Your task to perform on an android device: turn pop-ups off in chrome Image 0: 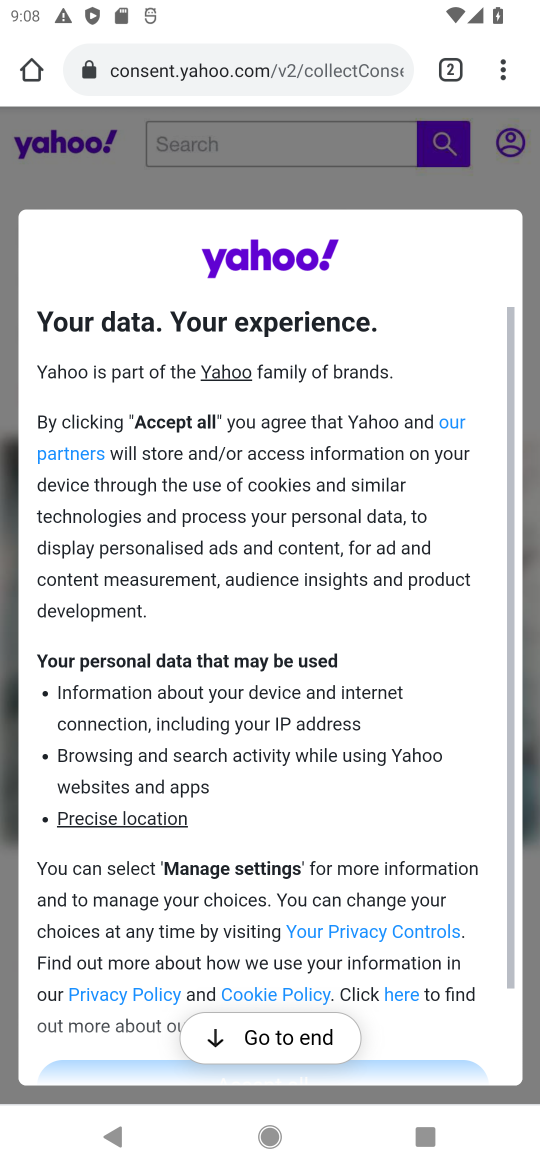
Step 0: click (500, 69)
Your task to perform on an android device: turn pop-ups off in chrome Image 1: 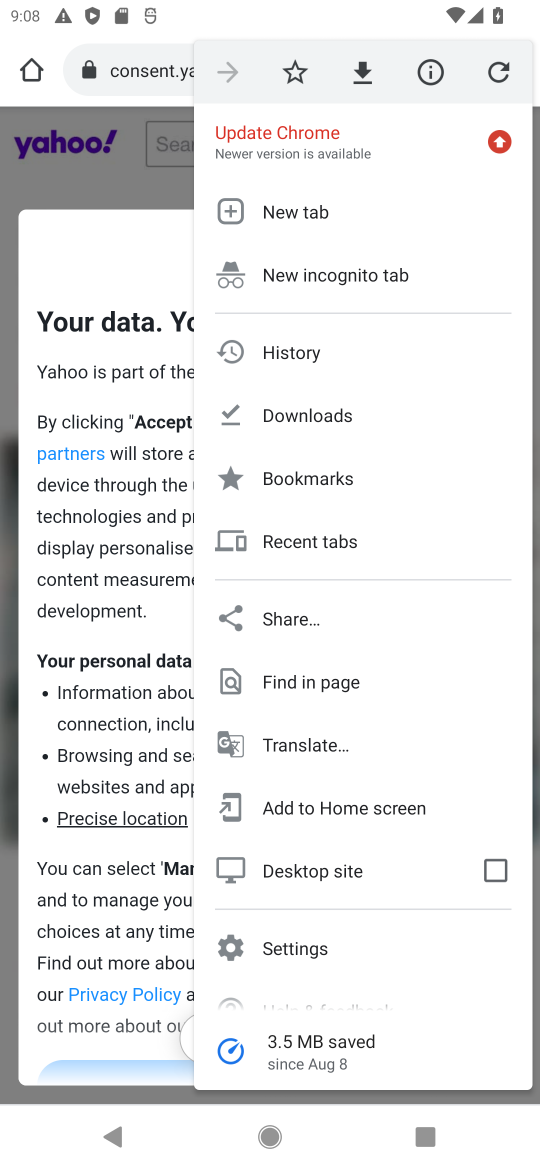
Step 1: click (375, 960)
Your task to perform on an android device: turn pop-ups off in chrome Image 2: 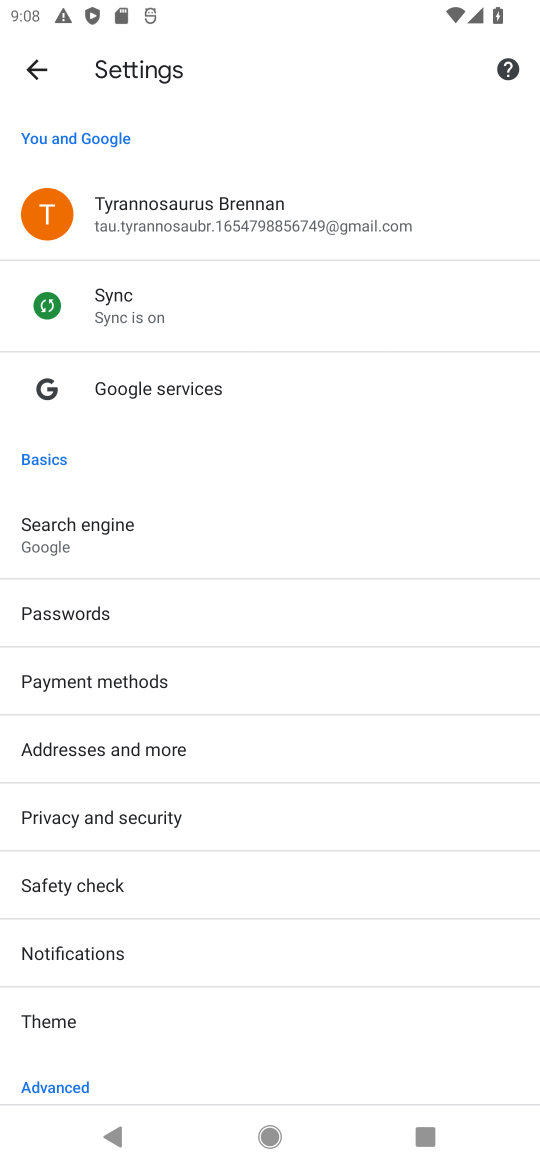
Step 2: drag from (265, 881) to (156, 149)
Your task to perform on an android device: turn pop-ups off in chrome Image 3: 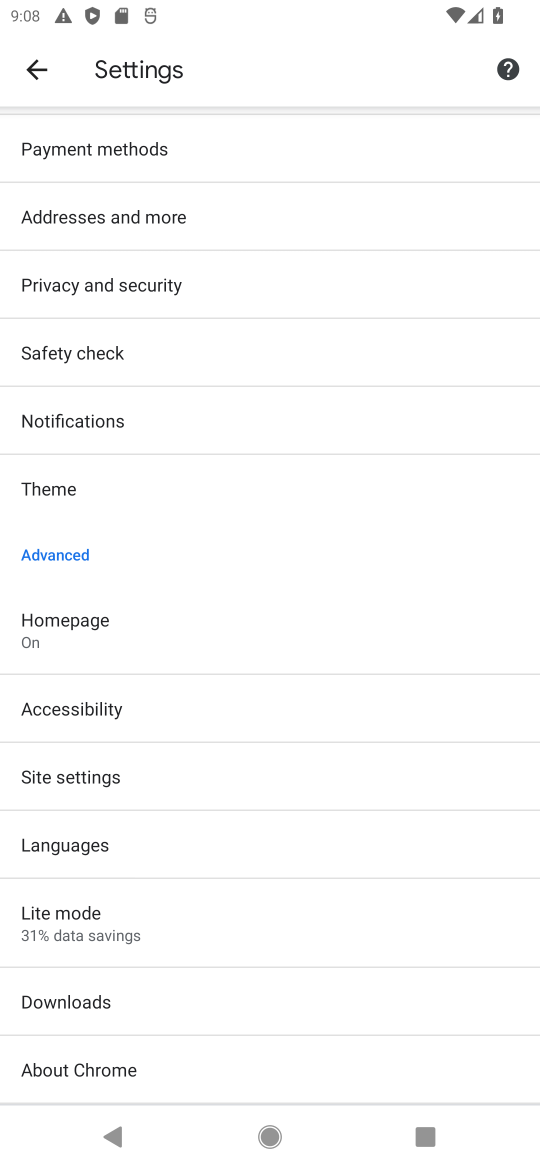
Step 3: click (75, 755)
Your task to perform on an android device: turn pop-ups off in chrome Image 4: 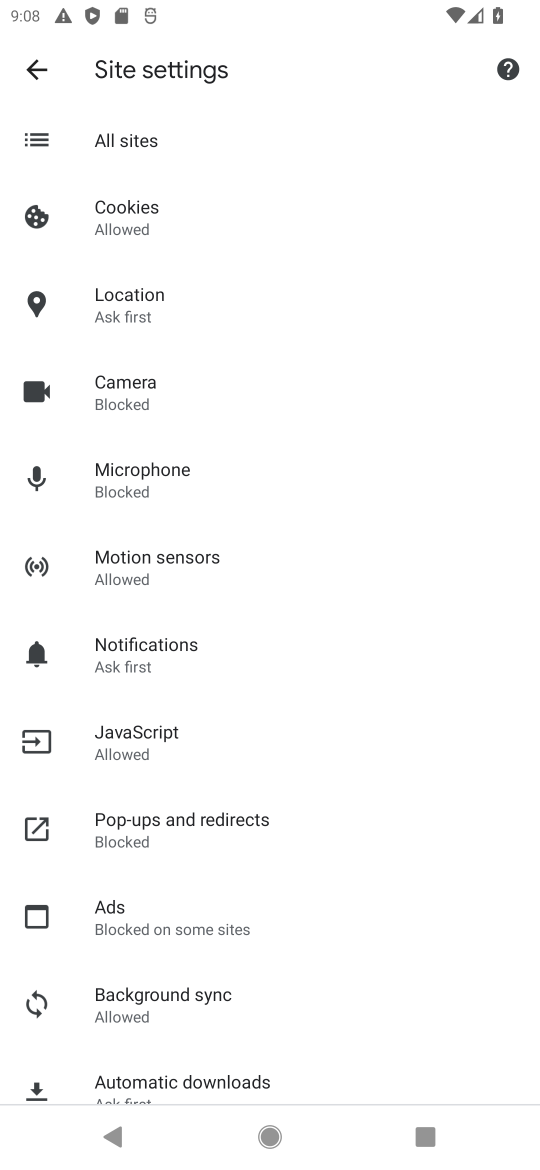
Step 4: click (197, 829)
Your task to perform on an android device: turn pop-ups off in chrome Image 5: 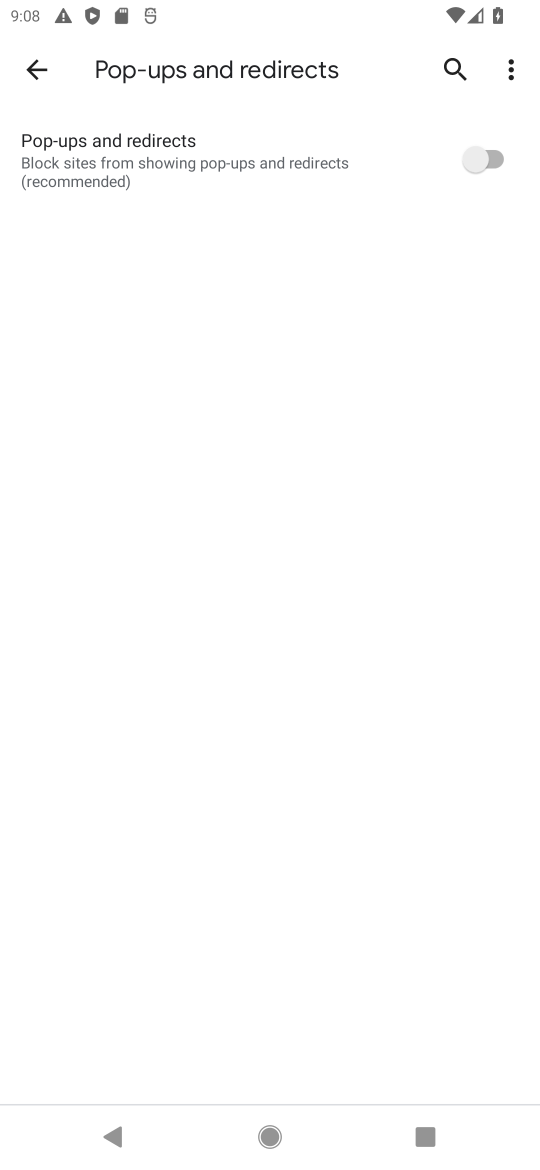
Step 5: task complete